Your task to perform on an android device: empty trash in google photos Image 0: 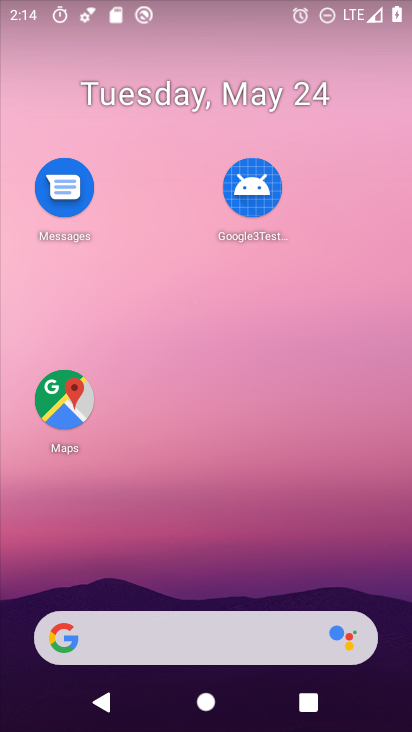
Step 0: drag from (139, 63) to (67, 14)
Your task to perform on an android device: empty trash in google photos Image 1: 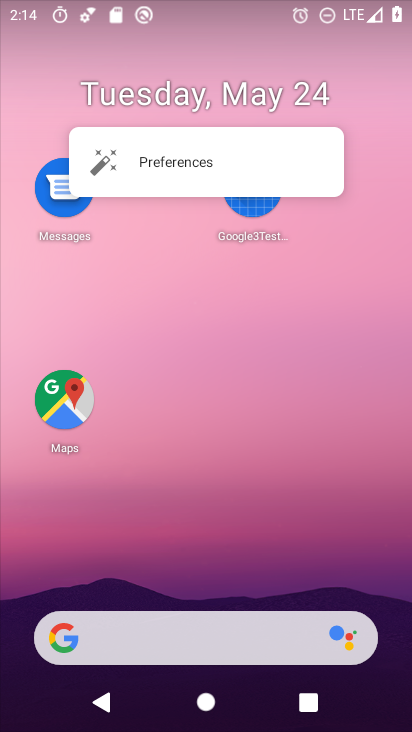
Step 1: click (244, 483)
Your task to perform on an android device: empty trash in google photos Image 2: 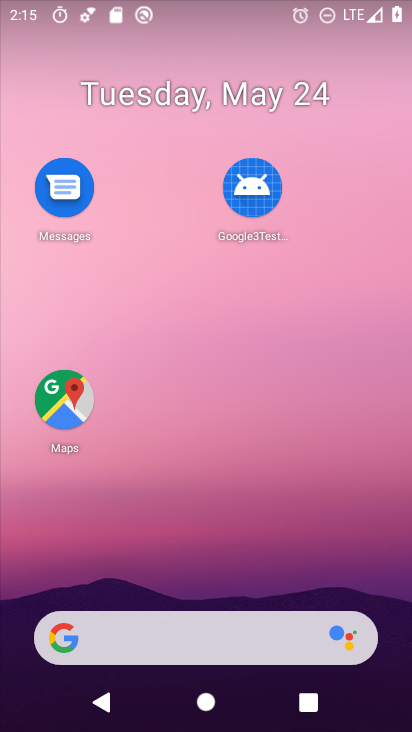
Step 2: drag from (216, 572) to (134, 13)
Your task to perform on an android device: empty trash in google photos Image 3: 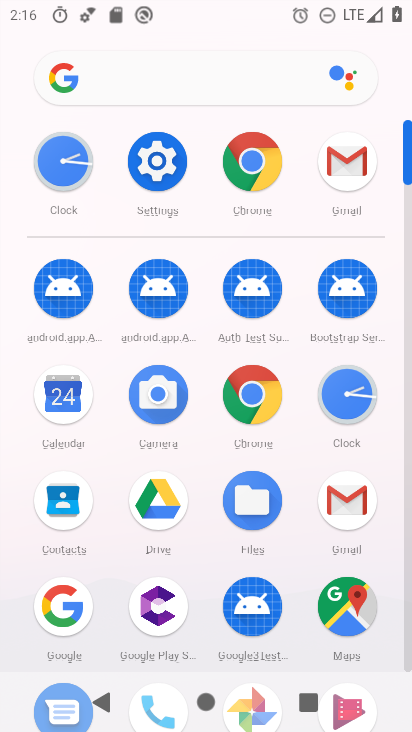
Step 3: drag from (191, 651) to (221, 372)
Your task to perform on an android device: empty trash in google photos Image 4: 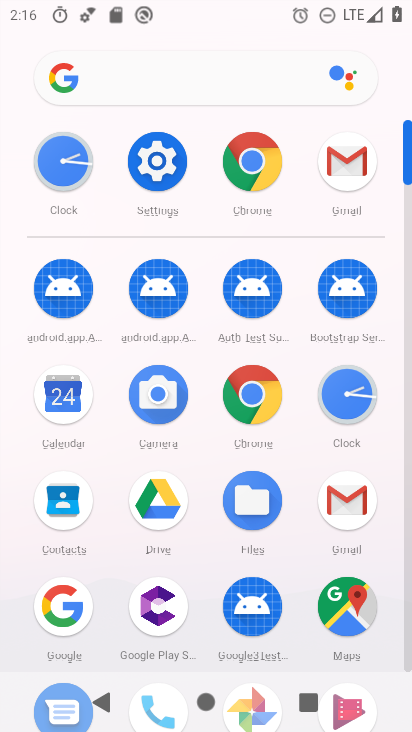
Step 4: drag from (185, 643) to (240, 346)
Your task to perform on an android device: empty trash in google photos Image 5: 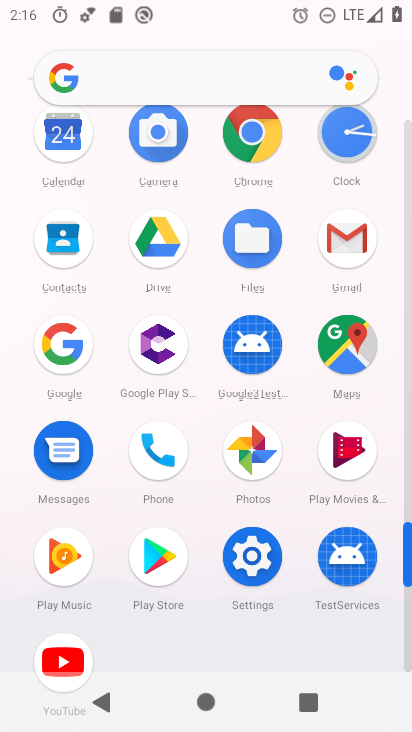
Step 5: click (239, 458)
Your task to perform on an android device: empty trash in google photos Image 6: 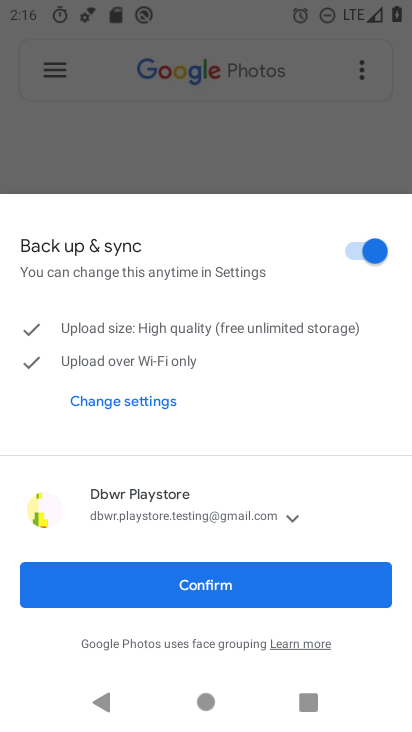
Step 6: click (193, 590)
Your task to perform on an android device: empty trash in google photos Image 7: 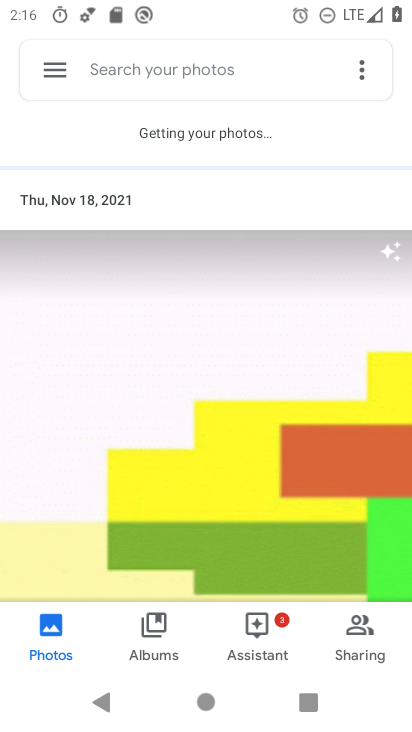
Step 7: click (365, 65)
Your task to perform on an android device: empty trash in google photos Image 8: 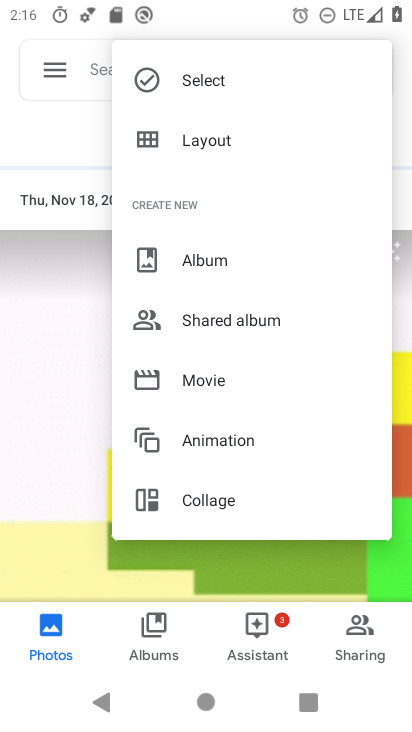
Step 8: click (42, 73)
Your task to perform on an android device: empty trash in google photos Image 9: 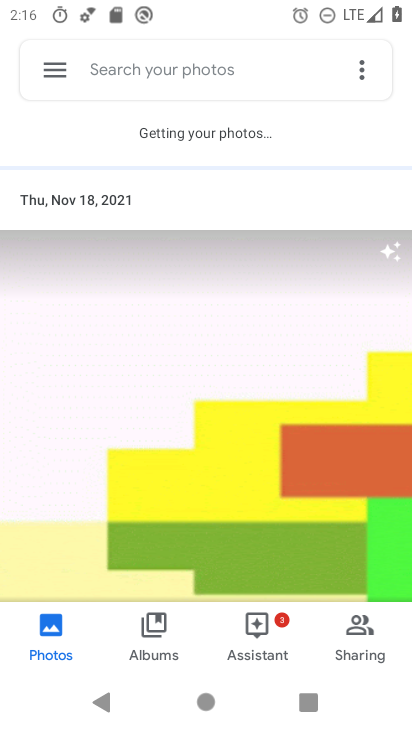
Step 9: click (55, 72)
Your task to perform on an android device: empty trash in google photos Image 10: 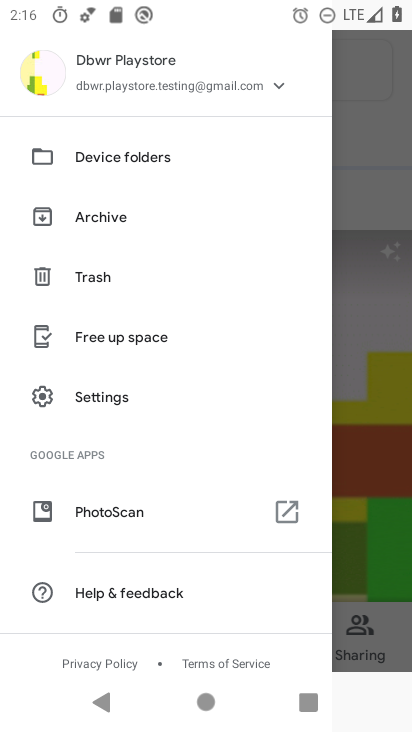
Step 10: click (81, 282)
Your task to perform on an android device: empty trash in google photos Image 11: 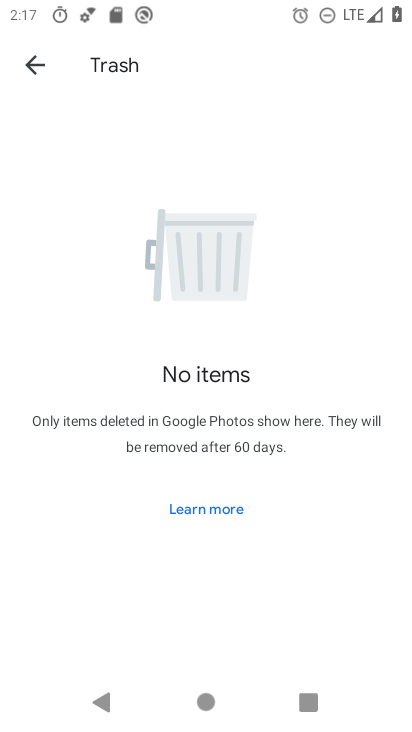
Step 11: task complete